Your task to perform on an android device: turn on data saver in the chrome app Image 0: 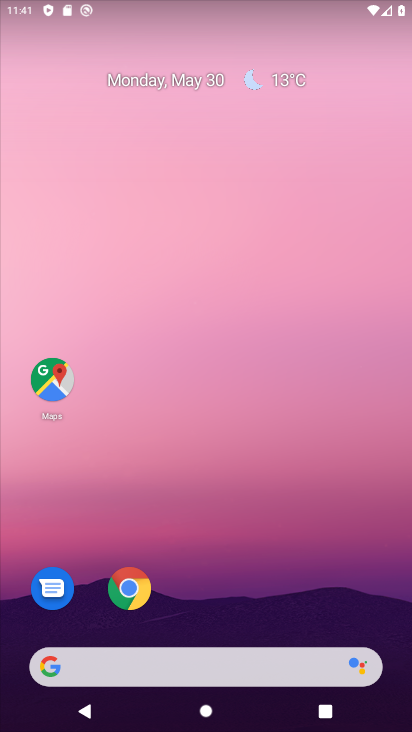
Step 0: click (134, 571)
Your task to perform on an android device: turn on data saver in the chrome app Image 1: 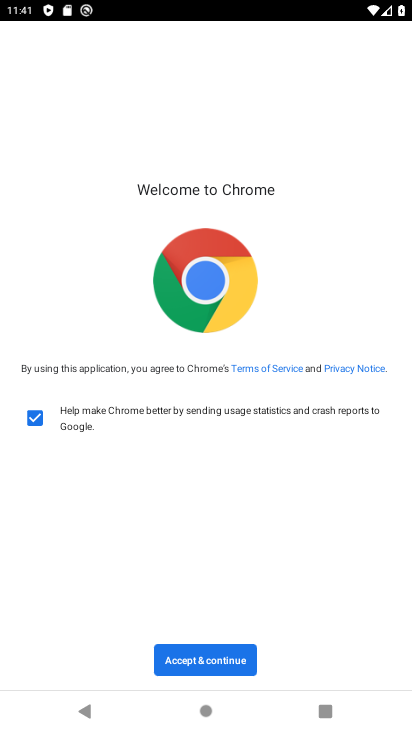
Step 1: click (214, 656)
Your task to perform on an android device: turn on data saver in the chrome app Image 2: 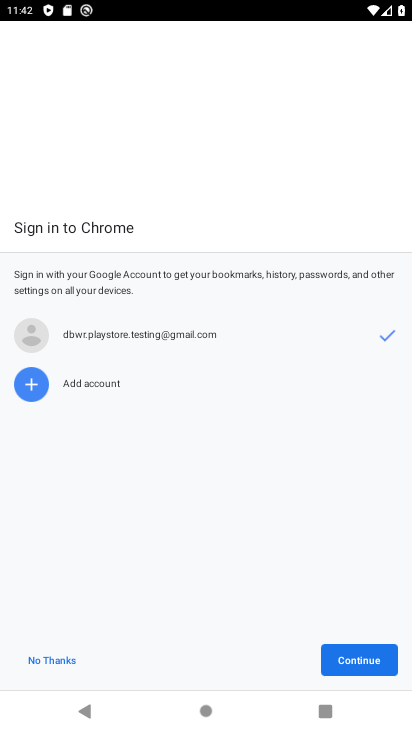
Step 2: click (350, 659)
Your task to perform on an android device: turn on data saver in the chrome app Image 3: 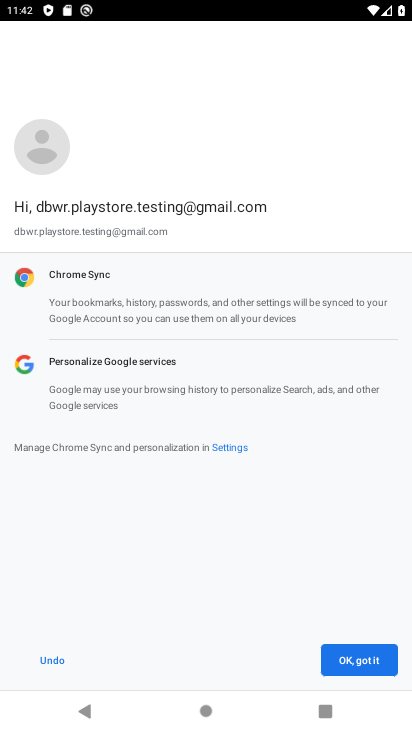
Step 3: click (350, 658)
Your task to perform on an android device: turn on data saver in the chrome app Image 4: 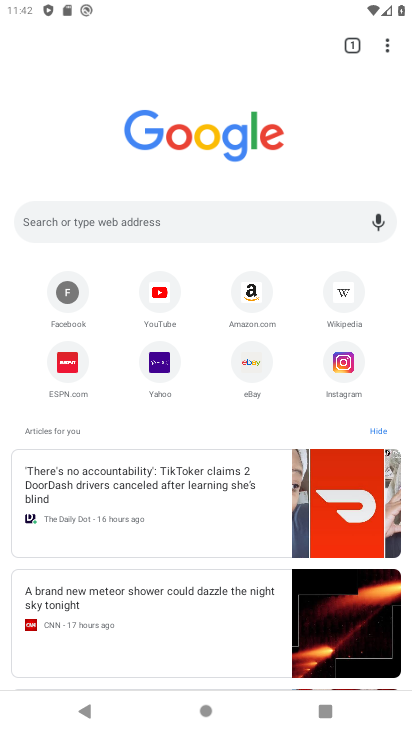
Step 4: click (383, 43)
Your task to perform on an android device: turn on data saver in the chrome app Image 5: 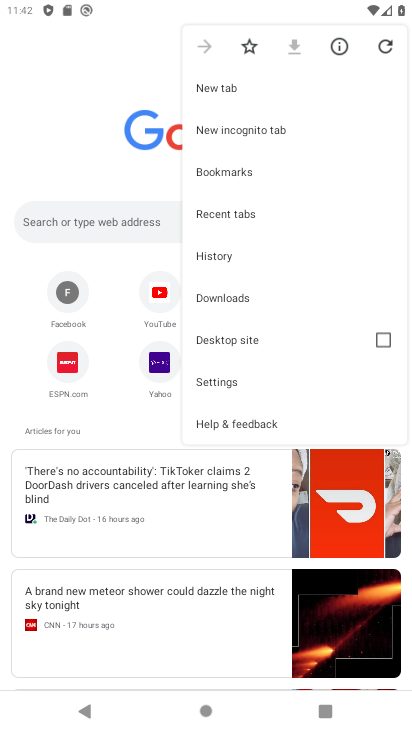
Step 5: click (206, 378)
Your task to perform on an android device: turn on data saver in the chrome app Image 6: 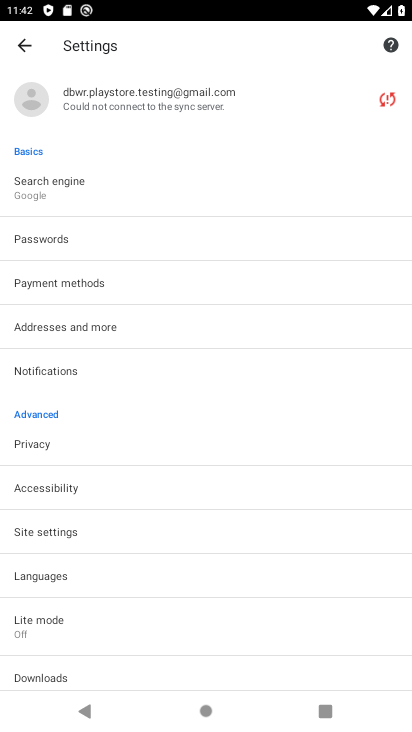
Step 6: click (48, 614)
Your task to perform on an android device: turn on data saver in the chrome app Image 7: 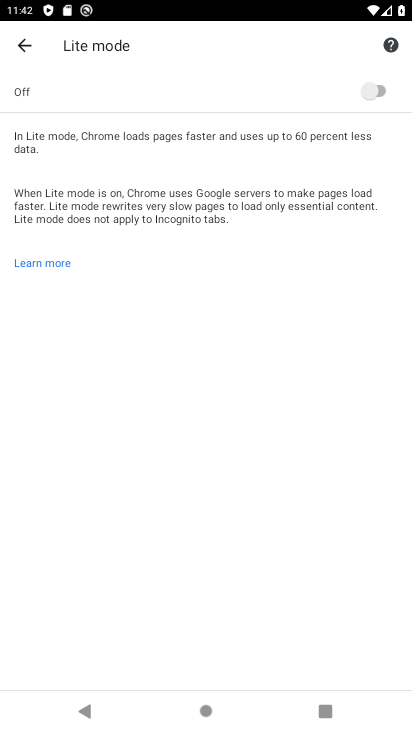
Step 7: click (374, 86)
Your task to perform on an android device: turn on data saver in the chrome app Image 8: 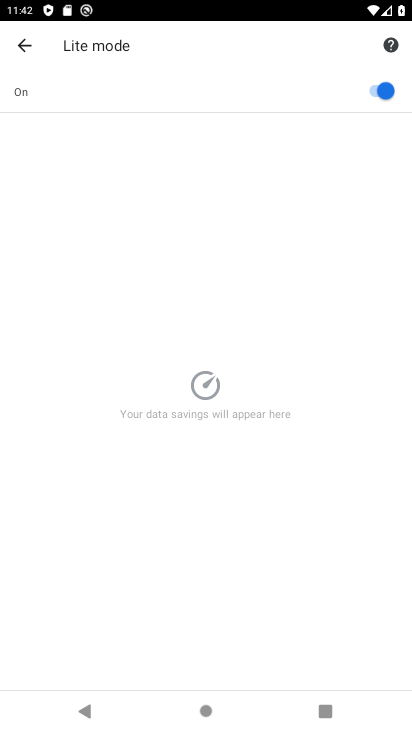
Step 8: task complete